Your task to perform on an android device: change the clock display to analog Image 0: 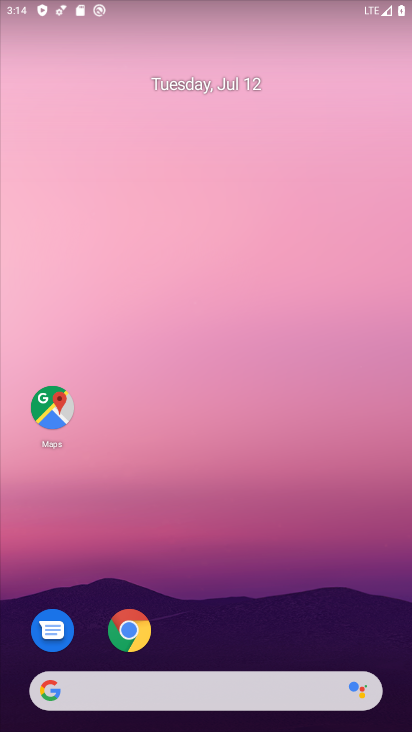
Step 0: drag from (213, 623) to (263, 10)
Your task to perform on an android device: change the clock display to analog Image 1: 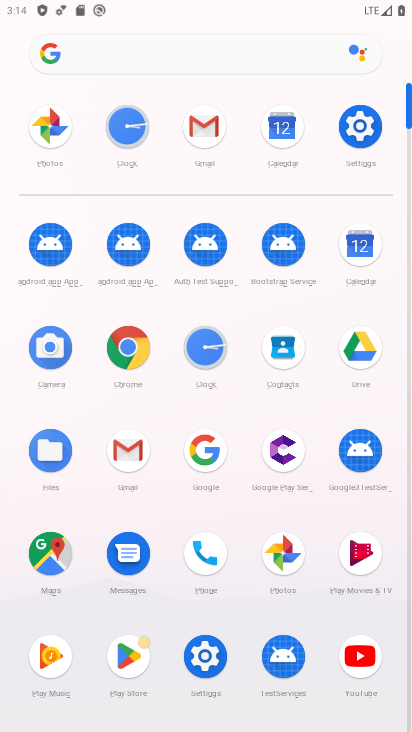
Step 1: click (216, 408)
Your task to perform on an android device: change the clock display to analog Image 2: 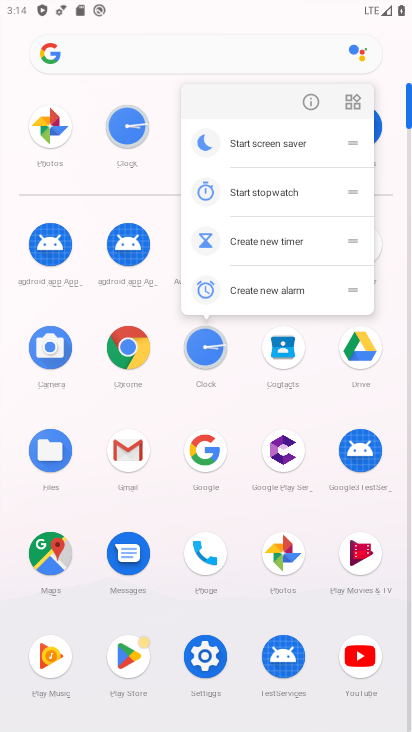
Step 2: click (207, 357)
Your task to perform on an android device: change the clock display to analog Image 3: 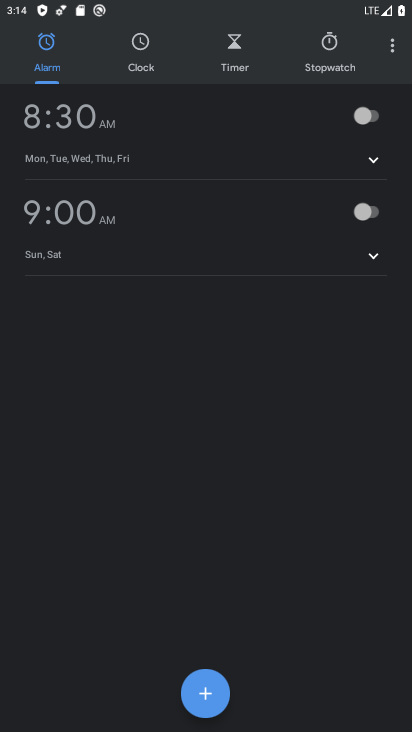
Step 3: click (395, 53)
Your task to perform on an android device: change the clock display to analog Image 4: 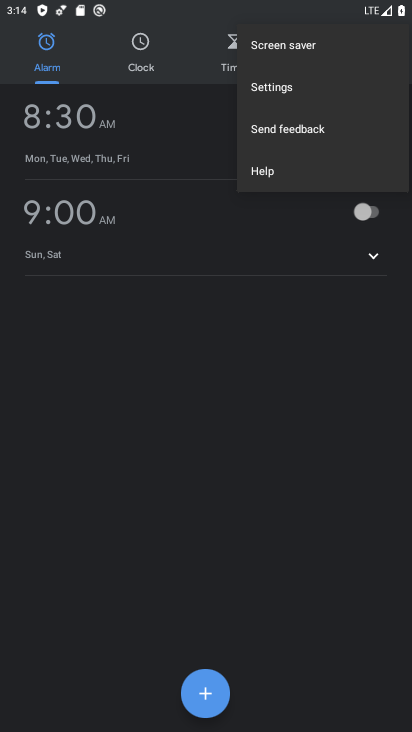
Step 4: click (283, 86)
Your task to perform on an android device: change the clock display to analog Image 5: 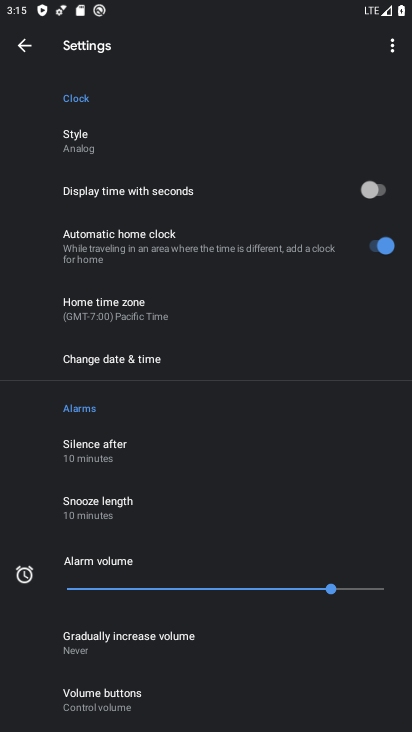
Step 5: task complete